Your task to perform on an android device: Open notification settings Image 0: 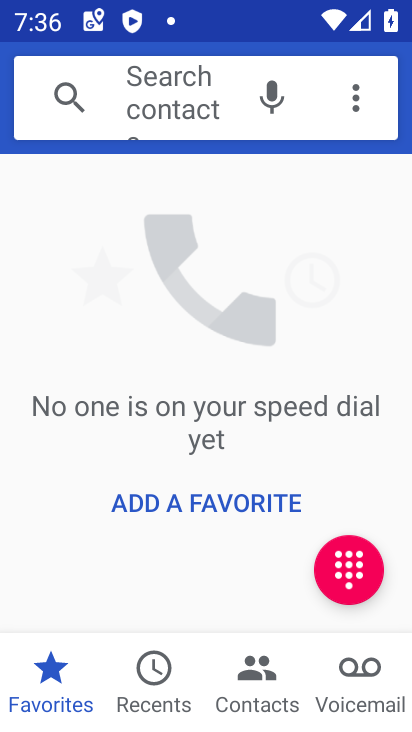
Step 0: press home button
Your task to perform on an android device: Open notification settings Image 1: 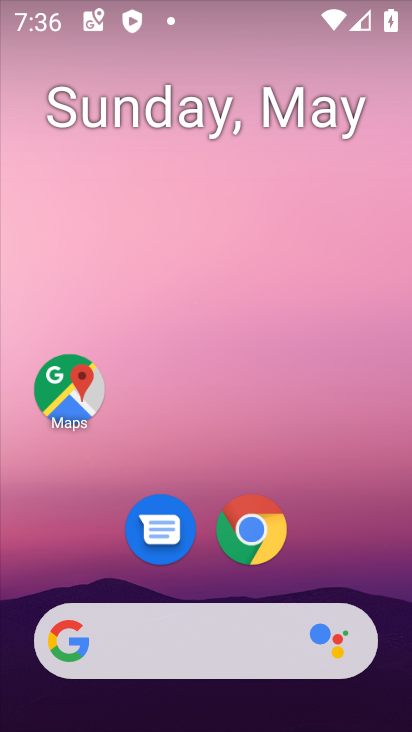
Step 1: drag from (358, 584) to (377, 5)
Your task to perform on an android device: Open notification settings Image 2: 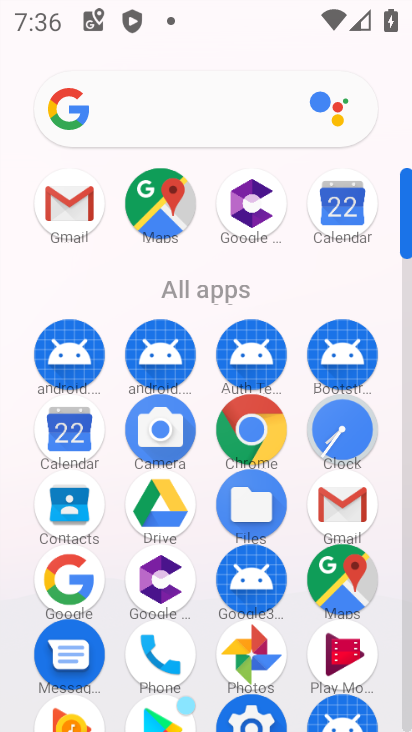
Step 2: drag from (408, 656) to (408, 613)
Your task to perform on an android device: Open notification settings Image 3: 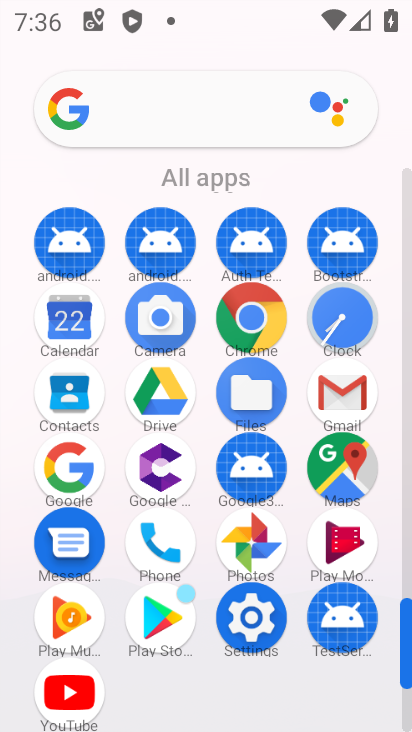
Step 3: click (252, 623)
Your task to perform on an android device: Open notification settings Image 4: 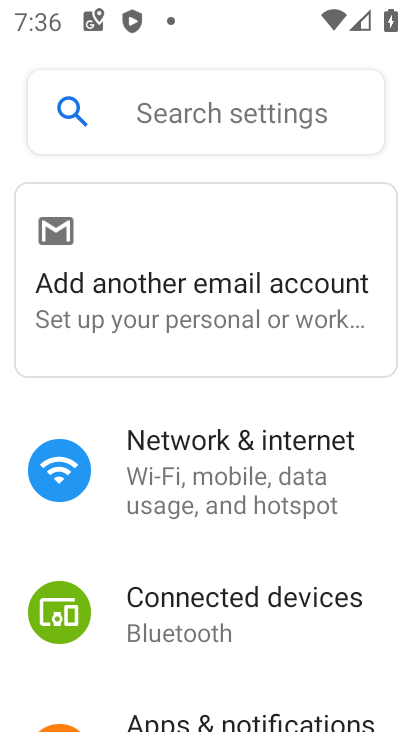
Step 4: drag from (383, 662) to (368, 481)
Your task to perform on an android device: Open notification settings Image 5: 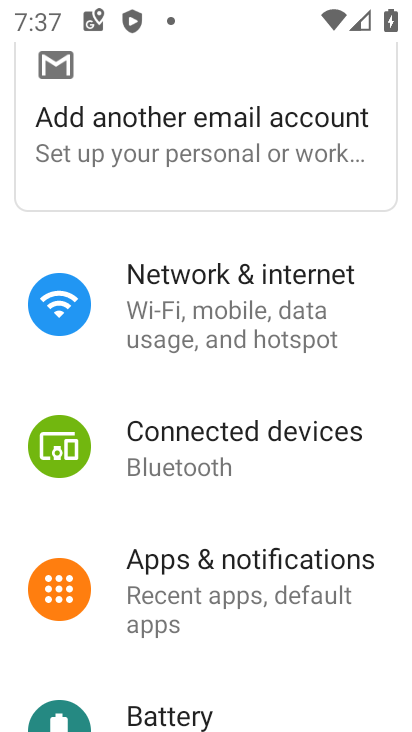
Step 5: click (262, 566)
Your task to perform on an android device: Open notification settings Image 6: 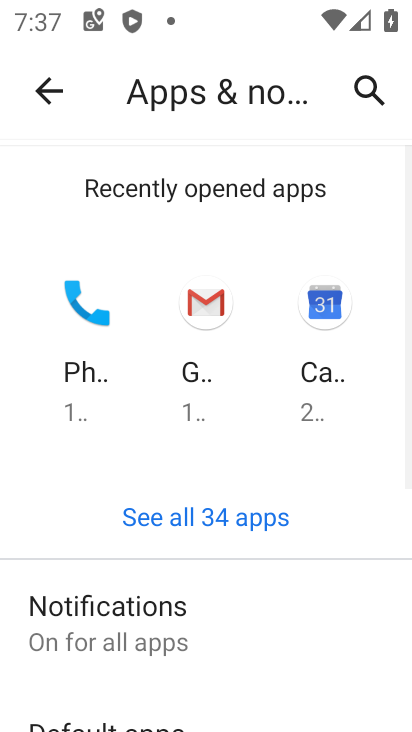
Step 6: task complete